Your task to perform on an android device: Open Yahoo.com Image 0: 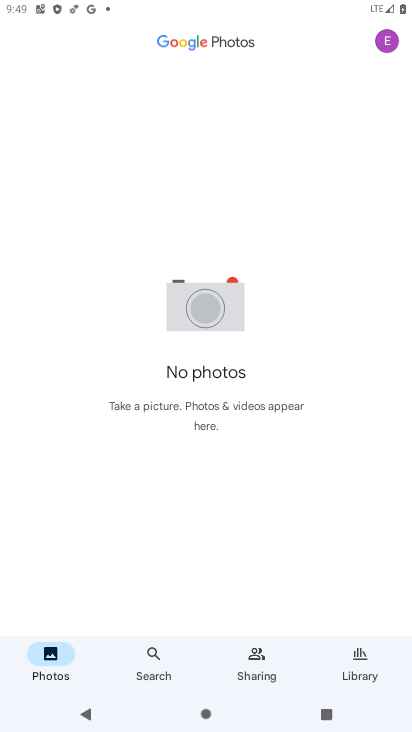
Step 0: press home button
Your task to perform on an android device: Open Yahoo.com Image 1: 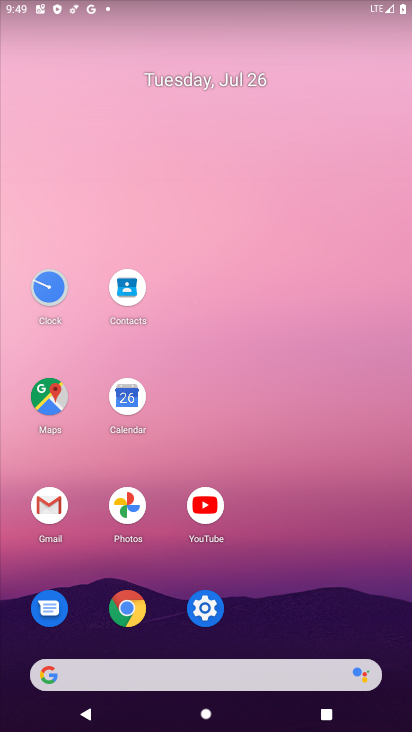
Step 1: click (127, 611)
Your task to perform on an android device: Open Yahoo.com Image 2: 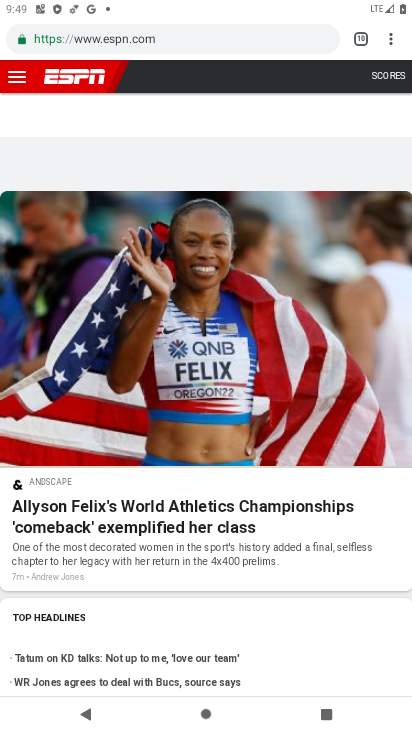
Step 2: click (392, 40)
Your task to perform on an android device: Open Yahoo.com Image 3: 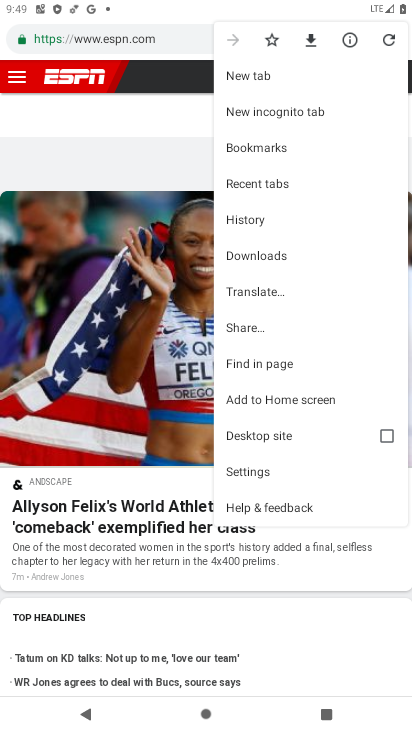
Step 3: click (258, 80)
Your task to perform on an android device: Open Yahoo.com Image 4: 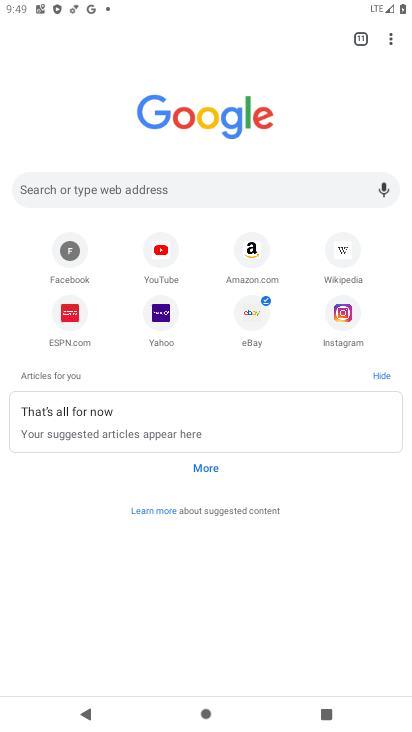
Step 4: click (145, 314)
Your task to perform on an android device: Open Yahoo.com Image 5: 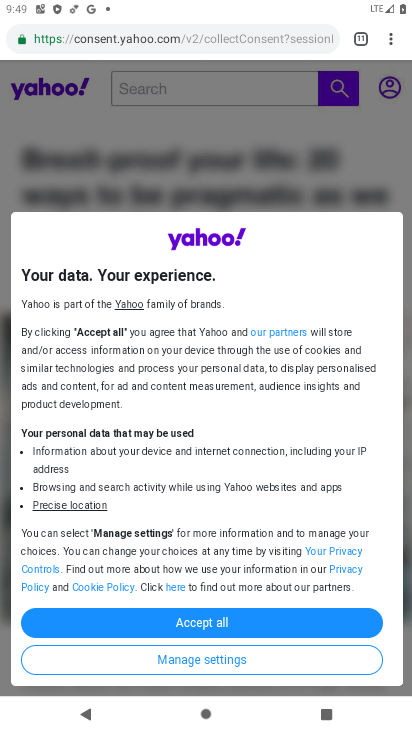
Step 5: click (169, 614)
Your task to perform on an android device: Open Yahoo.com Image 6: 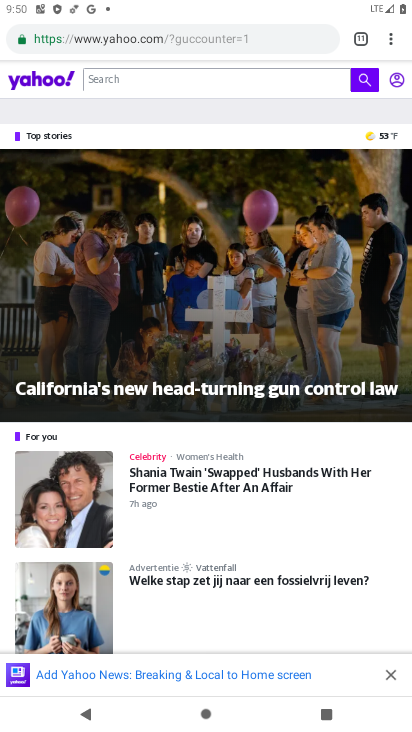
Step 6: task complete